Your task to perform on an android device: turn on showing notifications on the lock screen Image 0: 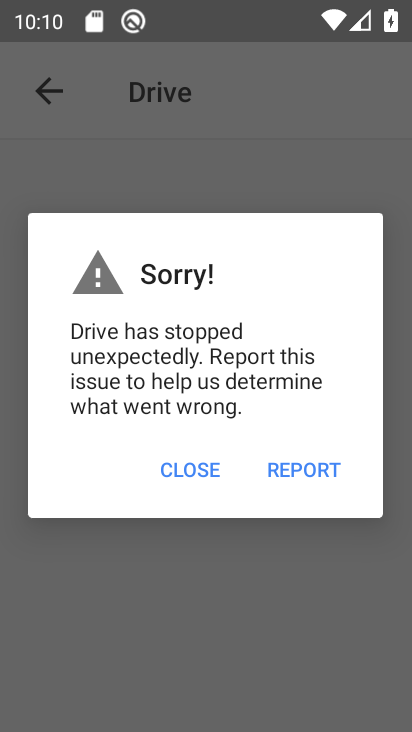
Step 0: press home button
Your task to perform on an android device: turn on showing notifications on the lock screen Image 1: 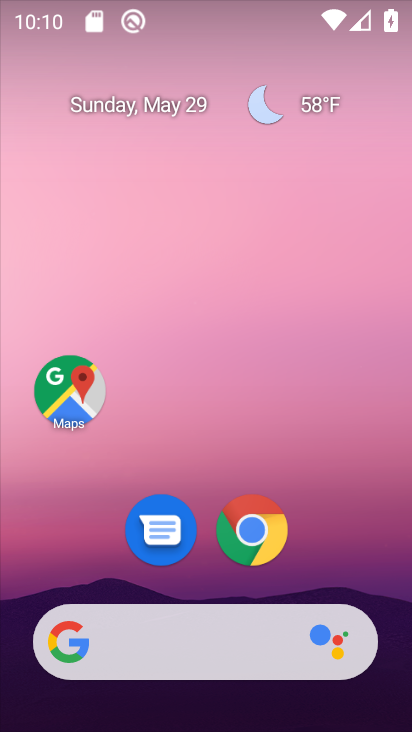
Step 1: drag from (214, 633) to (284, 17)
Your task to perform on an android device: turn on showing notifications on the lock screen Image 2: 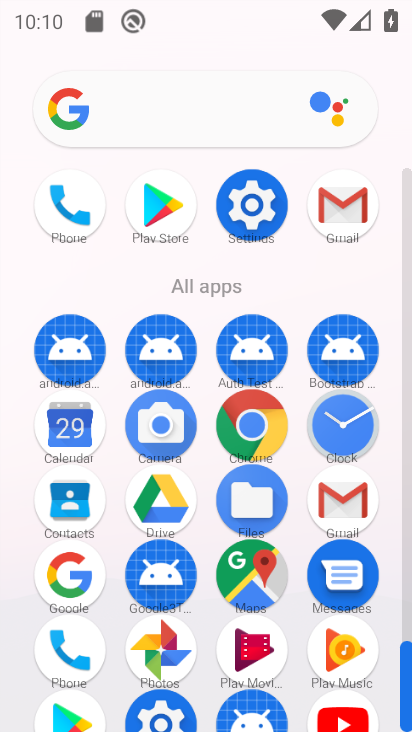
Step 2: click (257, 196)
Your task to perform on an android device: turn on showing notifications on the lock screen Image 3: 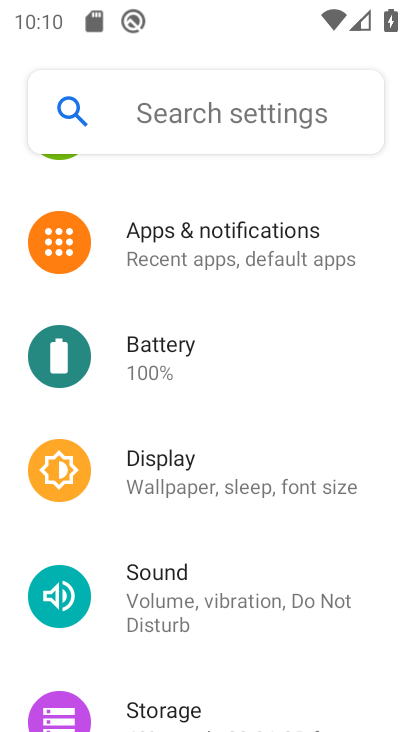
Step 3: click (186, 251)
Your task to perform on an android device: turn on showing notifications on the lock screen Image 4: 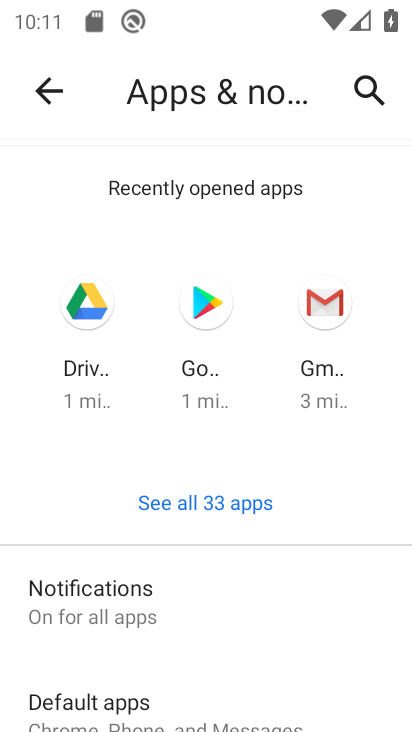
Step 4: click (152, 618)
Your task to perform on an android device: turn on showing notifications on the lock screen Image 5: 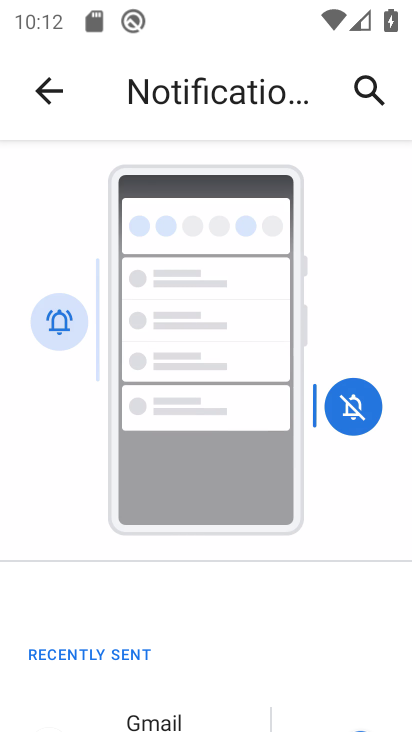
Step 5: drag from (235, 612) to (322, 26)
Your task to perform on an android device: turn on showing notifications on the lock screen Image 6: 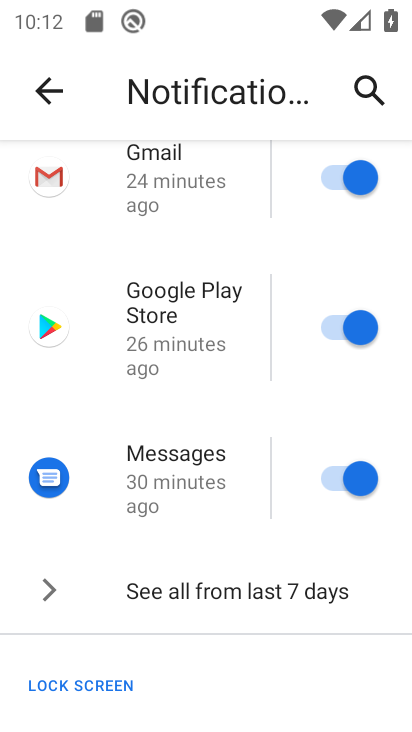
Step 6: drag from (197, 617) to (258, 157)
Your task to perform on an android device: turn on showing notifications on the lock screen Image 7: 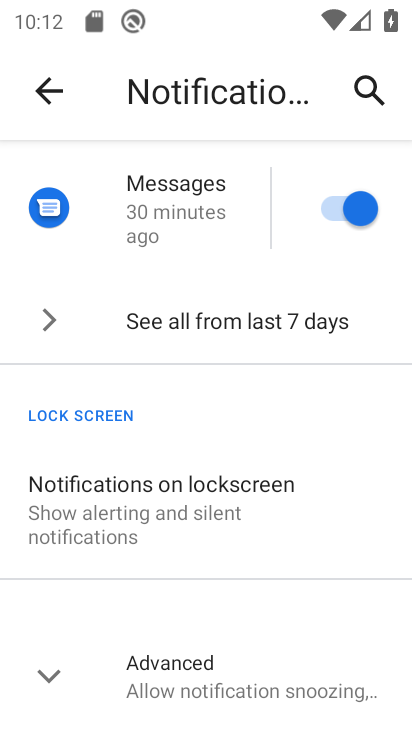
Step 7: click (209, 526)
Your task to perform on an android device: turn on showing notifications on the lock screen Image 8: 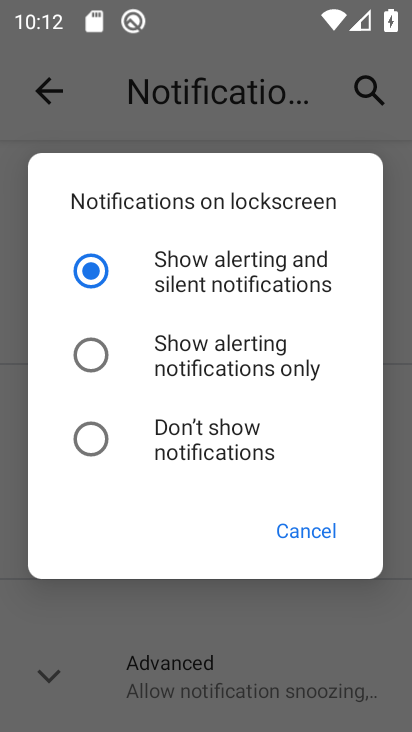
Step 8: click (258, 281)
Your task to perform on an android device: turn on showing notifications on the lock screen Image 9: 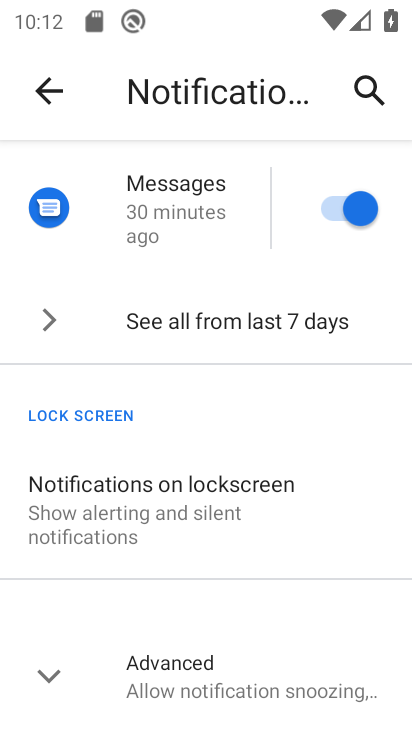
Step 9: task complete